Your task to perform on an android device: When is my next meeting? Image 0: 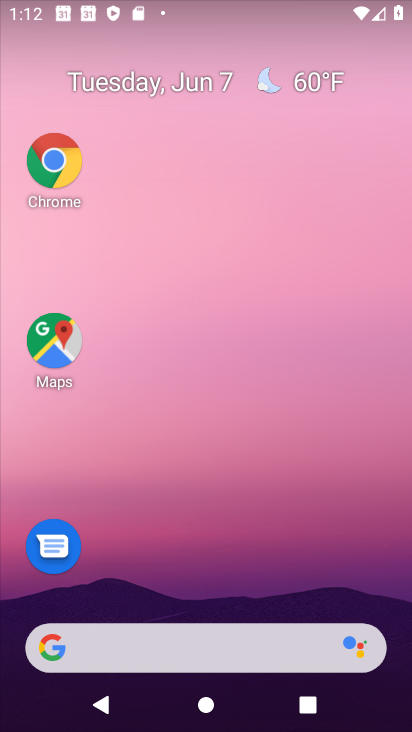
Step 0: drag from (221, 587) to (153, 1)
Your task to perform on an android device: When is my next meeting? Image 1: 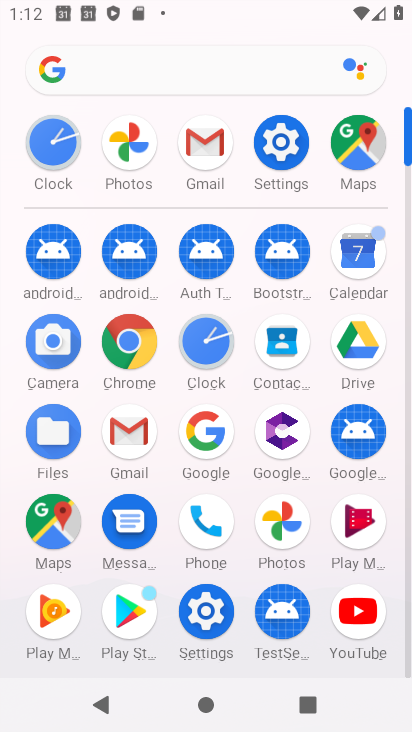
Step 1: click (366, 246)
Your task to perform on an android device: When is my next meeting? Image 2: 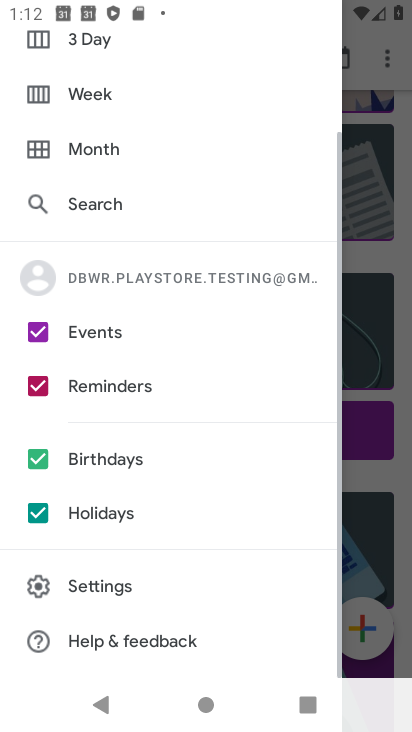
Step 2: drag from (201, 160) to (326, 633)
Your task to perform on an android device: When is my next meeting? Image 3: 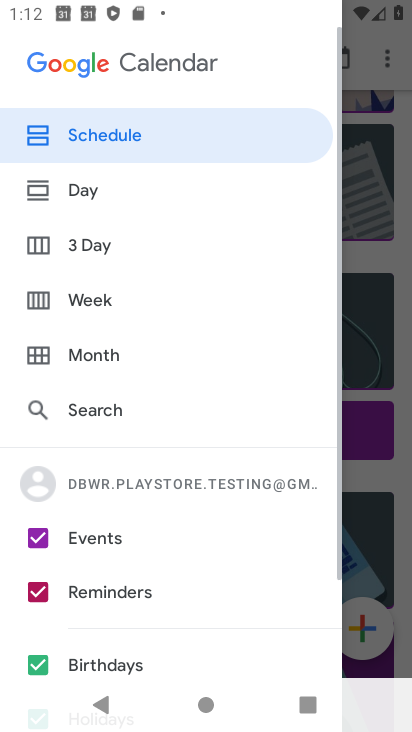
Step 3: press back button
Your task to perform on an android device: When is my next meeting? Image 4: 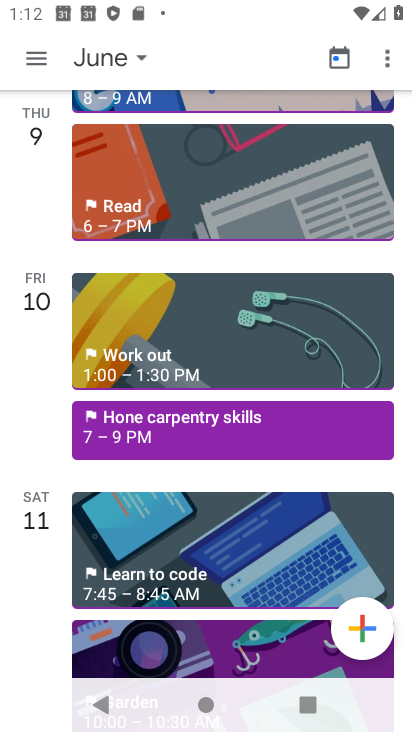
Step 4: click (125, 55)
Your task to perform on an android device: When is my next meeting? Image 5: 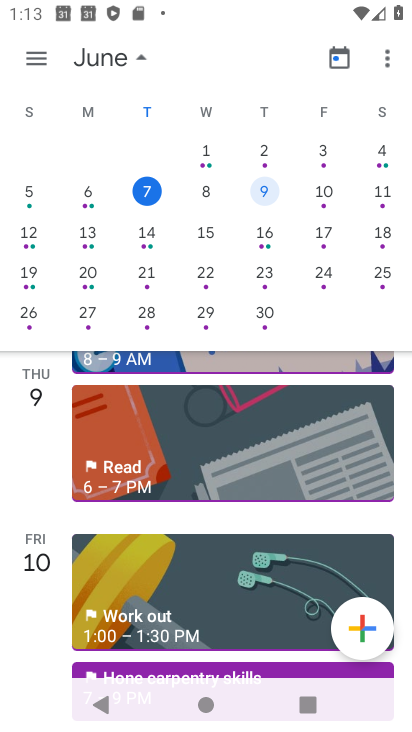
Step 5: click (148, 189)
Your task to perform on an android device: When is my next meeting? Image 6: 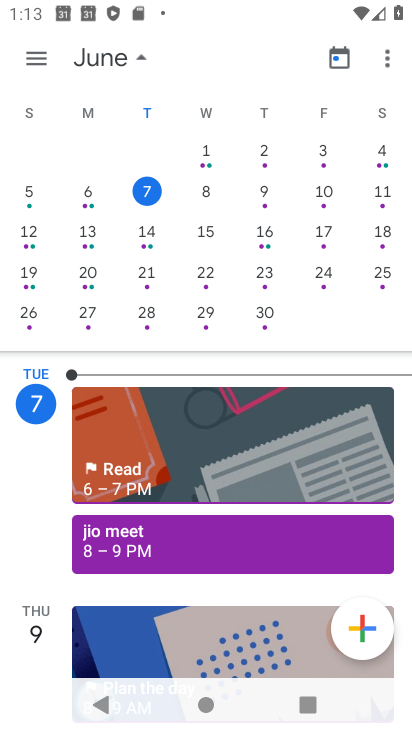
Step 6: drag from (267, 425) to (321, 144)
Your task to perform on an android device: When is my next meeting? Image 7: 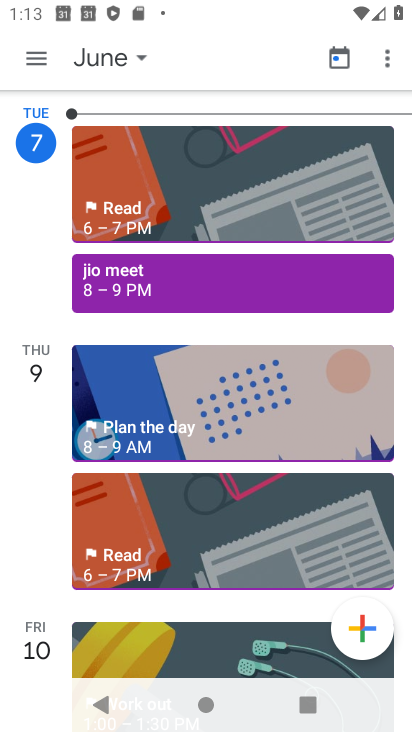
Step 7: click (175, 286)
Your task to perform on an android device: When is my next meeting? Image 8: 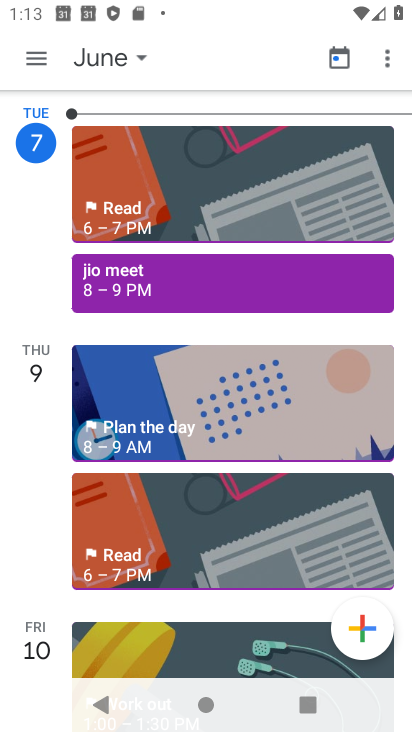
Step 8: task complete